Your task to perform on an android device: set the stopwatch Image 0: 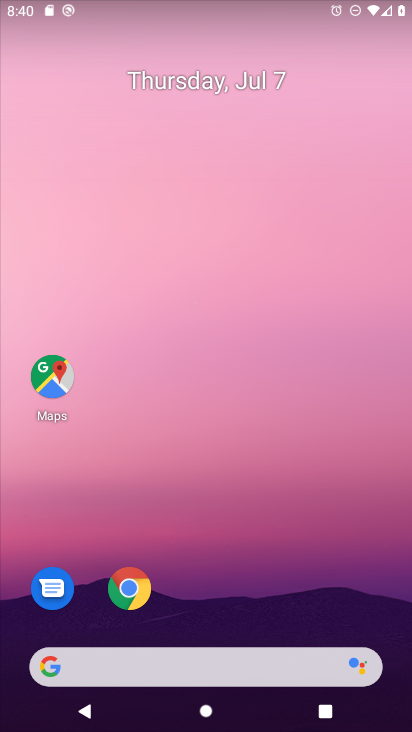
Step 0: drag from (218, 620) to (214, 307)
Your task to perform on an android device: set the stopwatch Image 1: 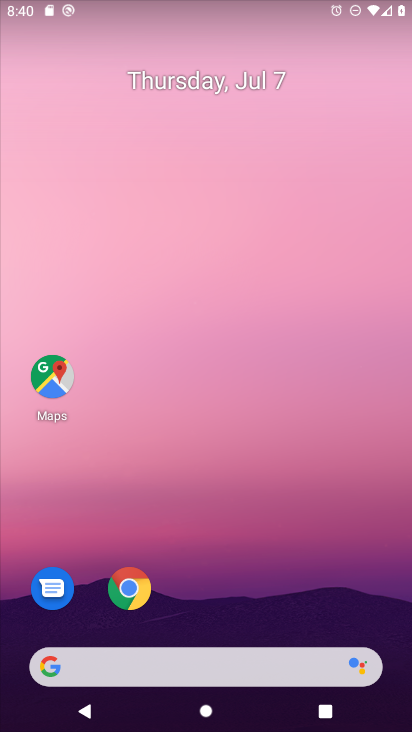
Step 1: drag from (224, 630) to (236, 271)
Your task to perform on an android device: set the stopwatch Image 2: 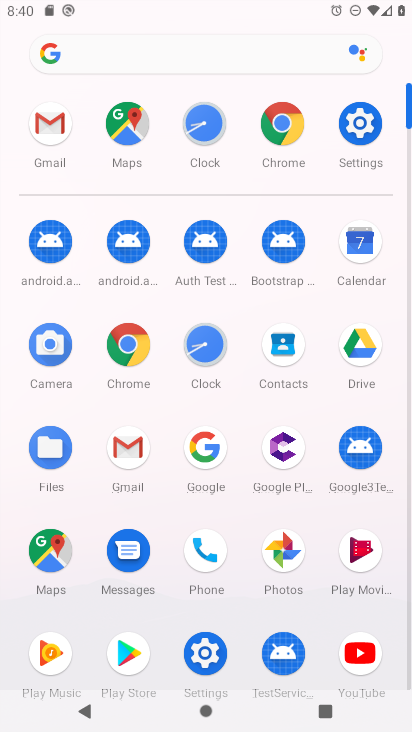
Step 2: click (197, 337)
Your task to perform on an android device: set the stopwatch Image 3: 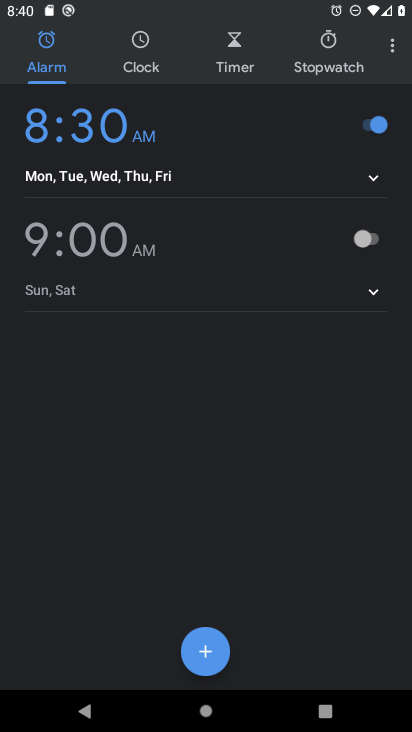
Step 3: click (329, 46)
Your task to perform on an android device: set the stopwatch Image 4: 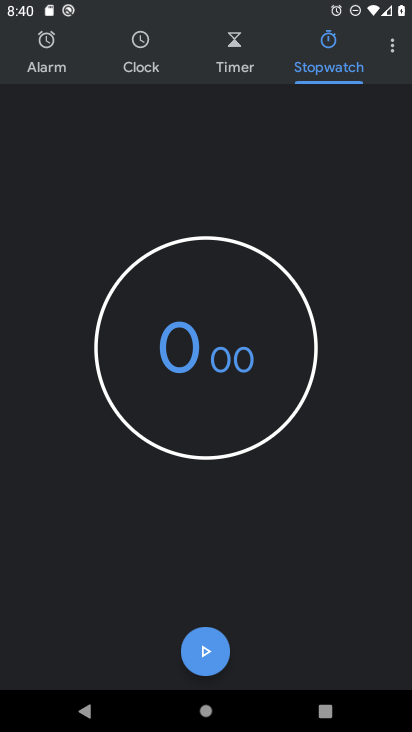
Step 4: task complete